Your task to perform on an android device: see sites visited before in the chrome app Image 0: 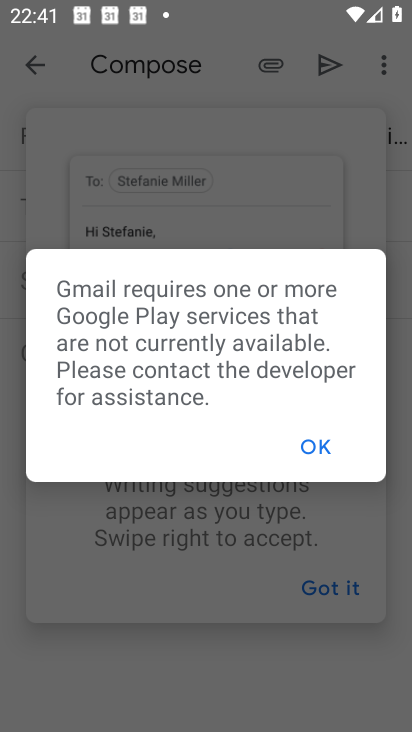
Step 0: press home button
Your task to perform on an android device: see sites visited before in the chrome app Image 1: 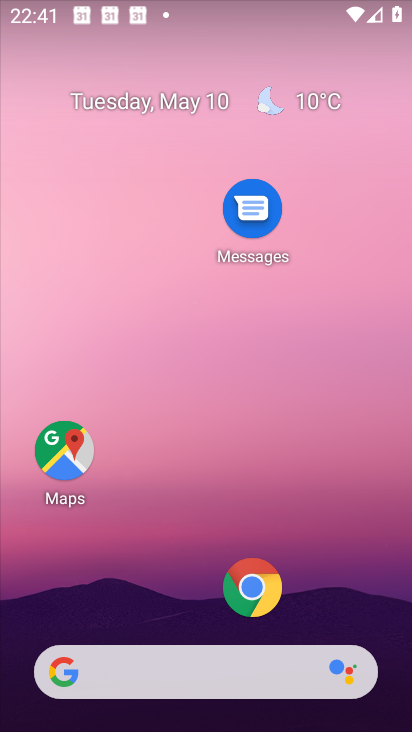
Step 1: click (275, 581)
Your task to perform on an android device: see sites visited before in the chrome app Image 2: 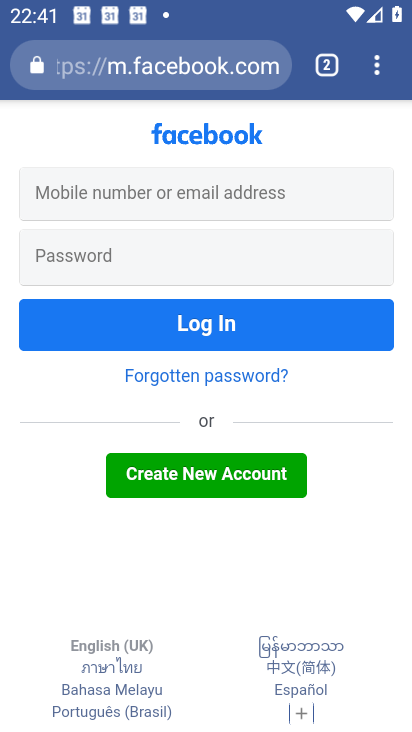
Step 2: click (371, 62)
Your task to perform on an android device: see sites visited before in the chrome app Image 3: 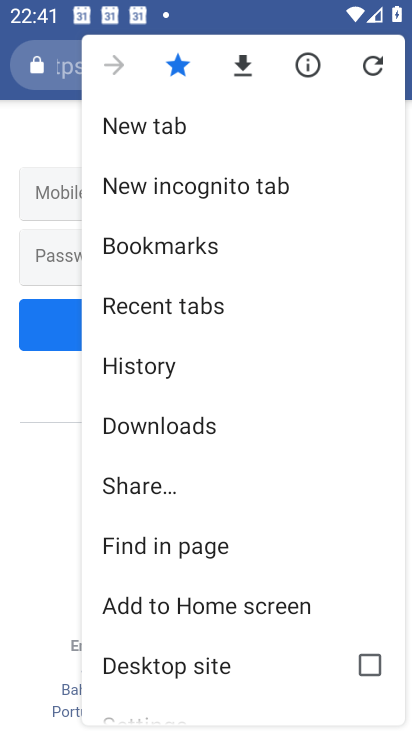
Step 3: click (148, 379)
Your task to perform on an android device: see sites visited before in the chrome app Image 4: 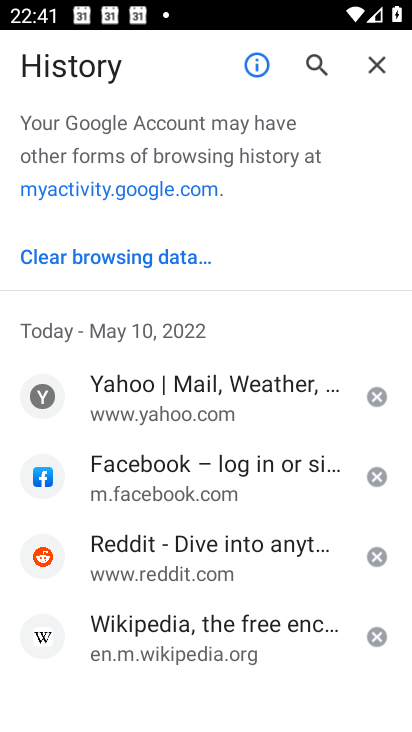
Step 4: task complete